Your task to perform on an android device: clear all cookies in the chrome app Image 0: 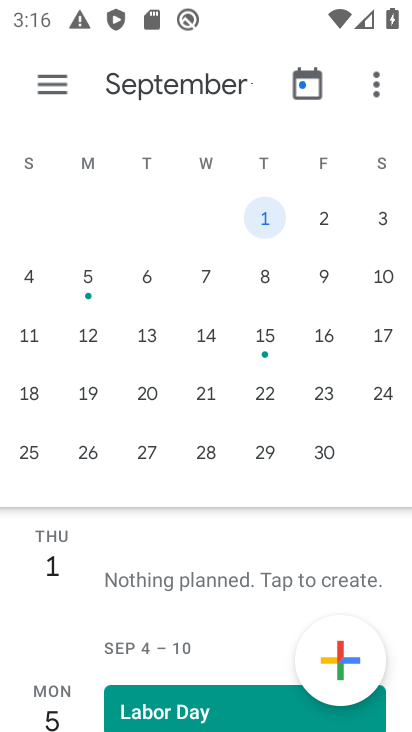
Step 0: press home button
Your task to perform on an android device: clear all cookies in the chrome app Image 1: 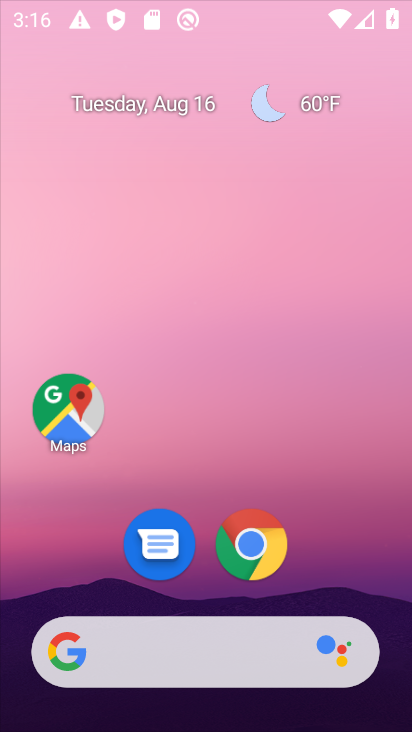
Step 1: drag from (399, 631) to (239, 98)
Your task to perform on an android device: clear all cookies in the chrome app Image 2: 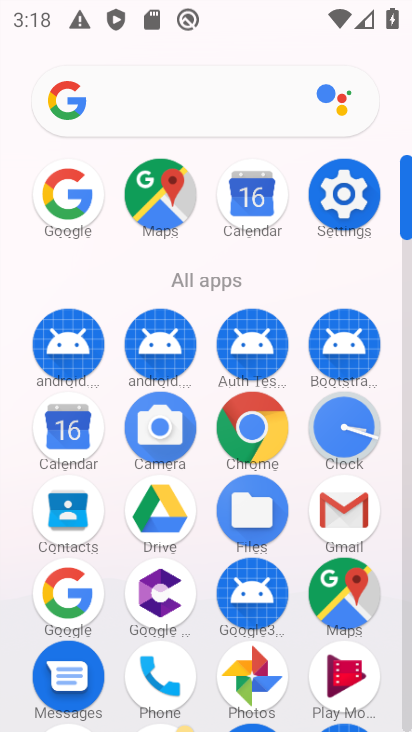
Step 2: click (244, 425)
Your task to perform on an android device: clear all cookies in the chrome app Image 3: 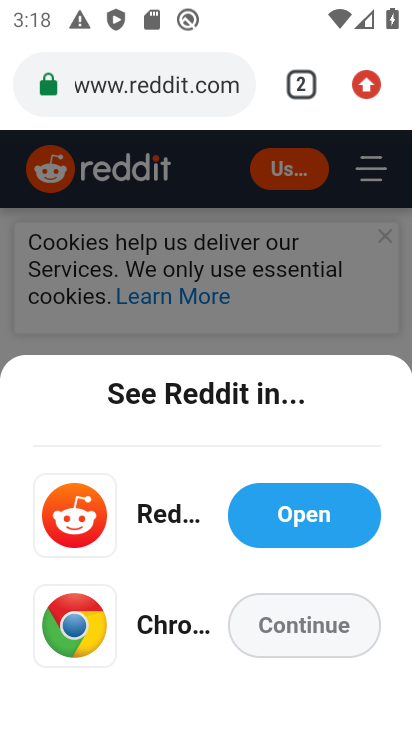
Step 3: click (360, 84)
Your task to perform on an android device: clear all cookies in the chrome app Image 4: 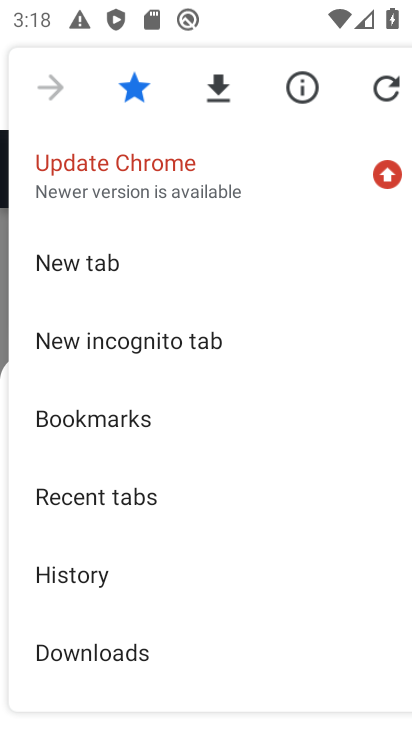
Step 4: click (80, 582)
Your task to perform on an android device: clear all cookies in the chrome app Image 5: 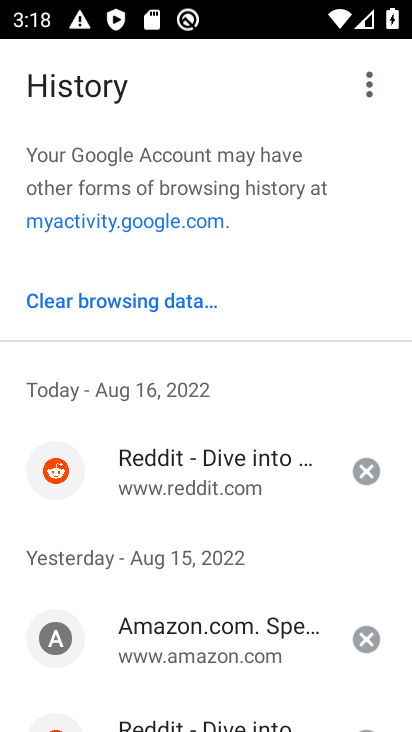
Step 5: click (142, 295)
Your task to perform on an android device: clear all cookies in the chrome app Image 6: 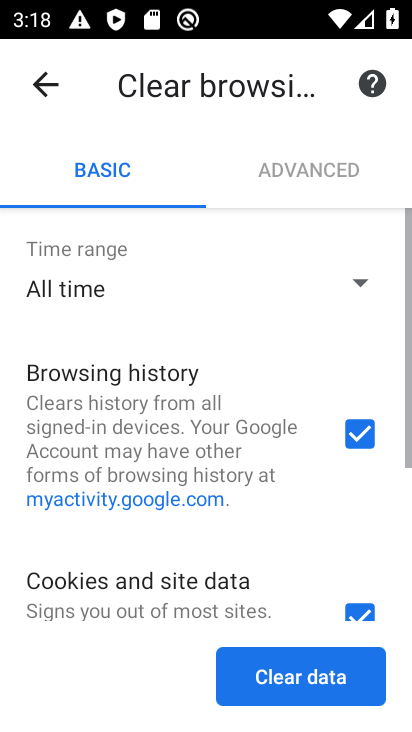
Step 6: click (289, 662)
Your task to perform on an android device: clear all cookies in the chrome app Image 7: 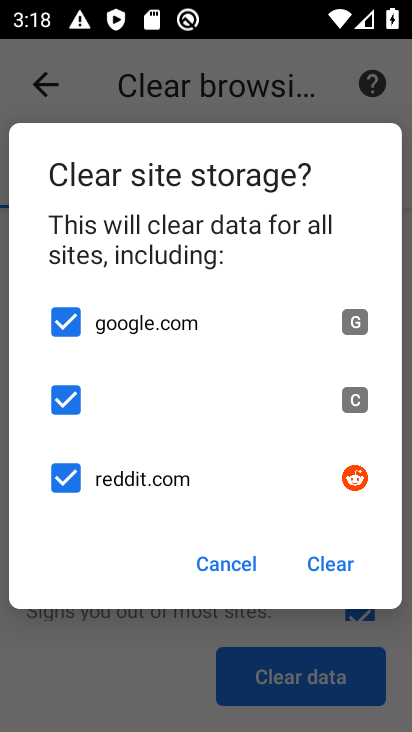
Step 7: click (348, 572)
Your task to perform on an android device: clear all cookies in the chrome app Image 8: 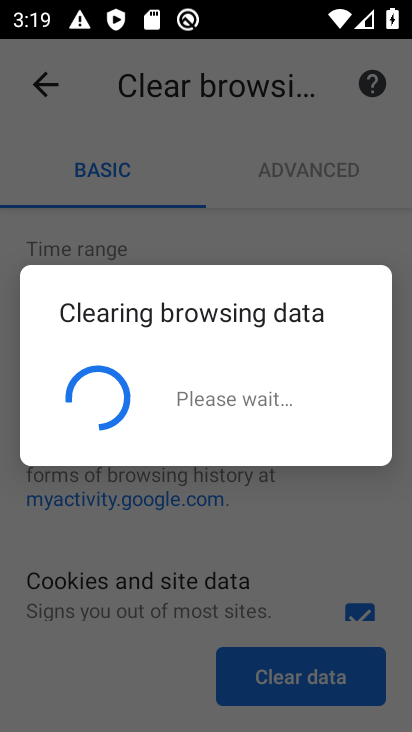
Step 8: task complete